Your task to perform on an android device: check storage Image 0: 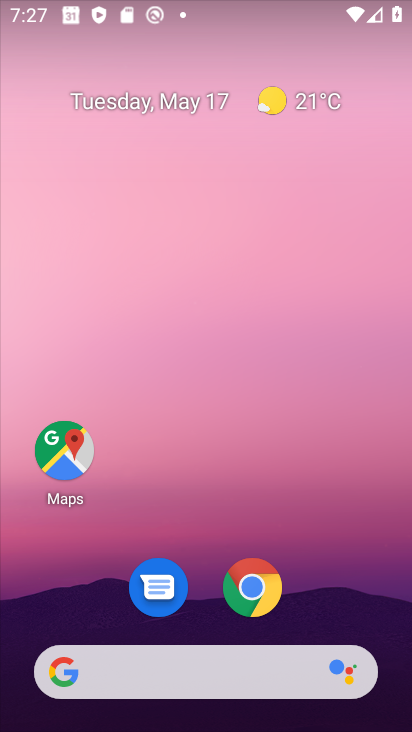
Step 0: drag from (363, 505) to (373, 172)
Your task to perform on an android device: check storage Image 1: 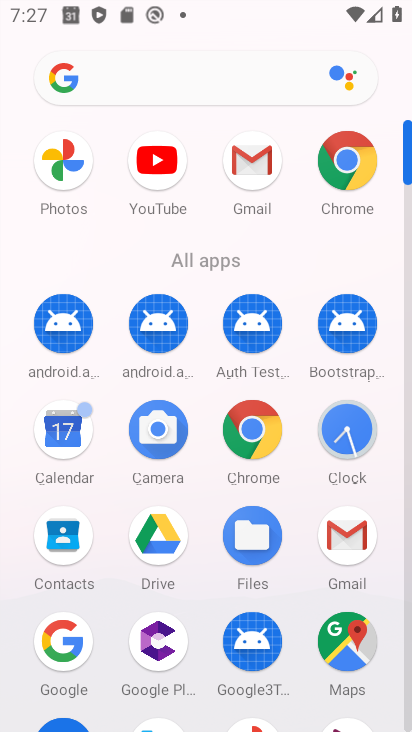
Step 1: drag from (299, 595) to (306, 361)
Your task to perform on an android device: check storage Image 2: 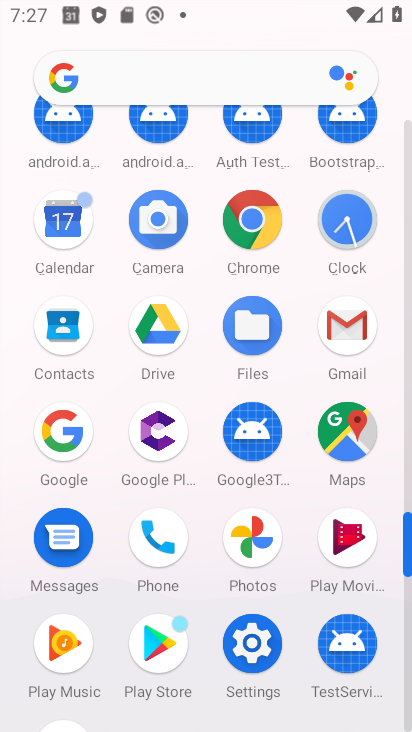
Step 2: click (268, 650)
Your task to perform on an android device: check storage Image 3: 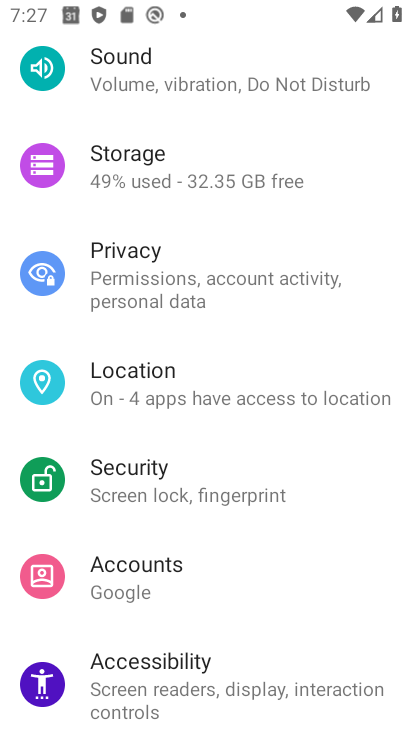
Step 3: drag from (374, 296) to (369, 412)
Your task to perform on an android device: check storage Image 4: 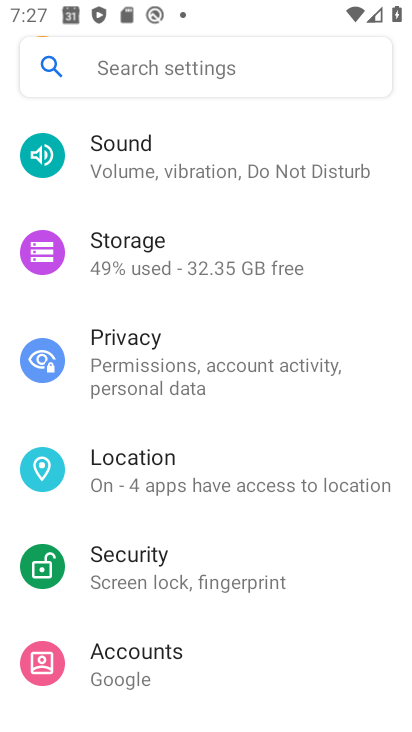
Step 4: drag from (375, 244) to (375, 366)
Your task to perform on an android device: check storage Image 5: 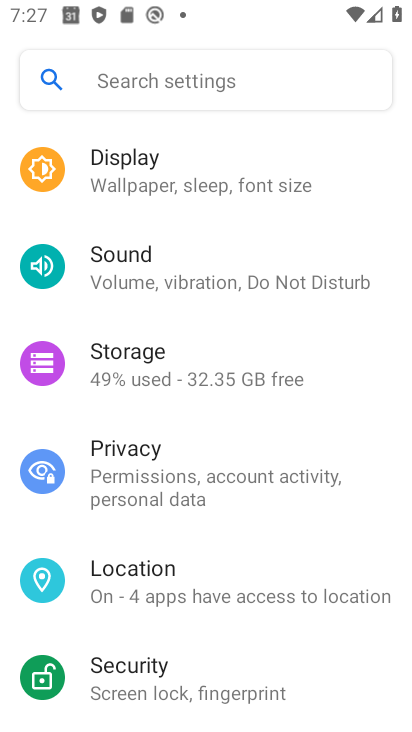
Step 5: drag from (389, 216) to (384, 385)
Your task to perform on an android device: check storage Image 6: 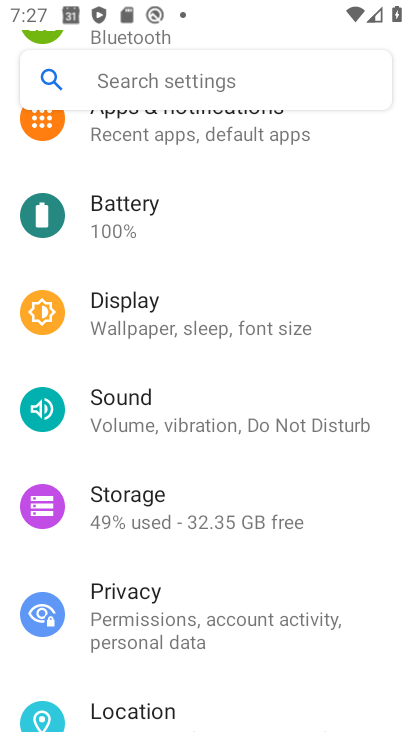
Step 6: drag from (379, 198) to (377, 378)
Your task to perform on an android device: check storage Image 7: 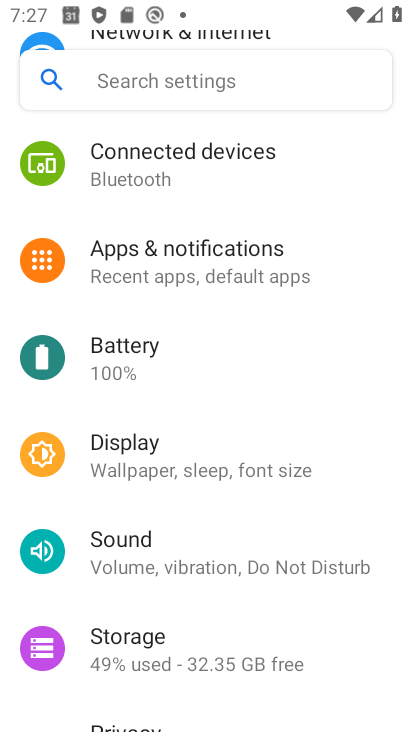
Step 7: drag from (367, 206) to (368, 353)
Your task to perform on an android device: check storage Image 8: 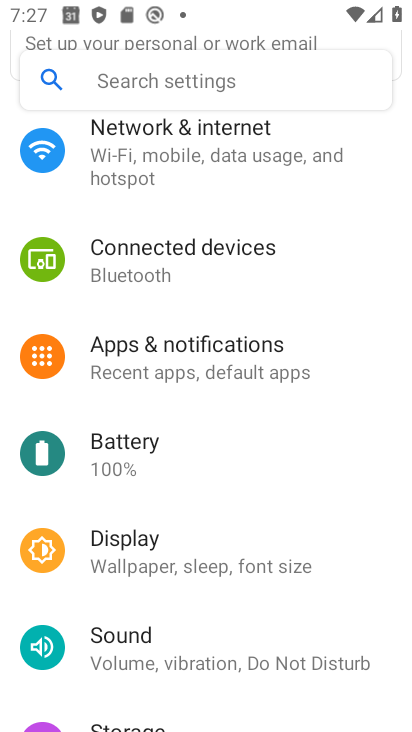
Step 8: drag from (373, 175) to (362, 347)
Your task to perform on an android device: check storage Image 9: 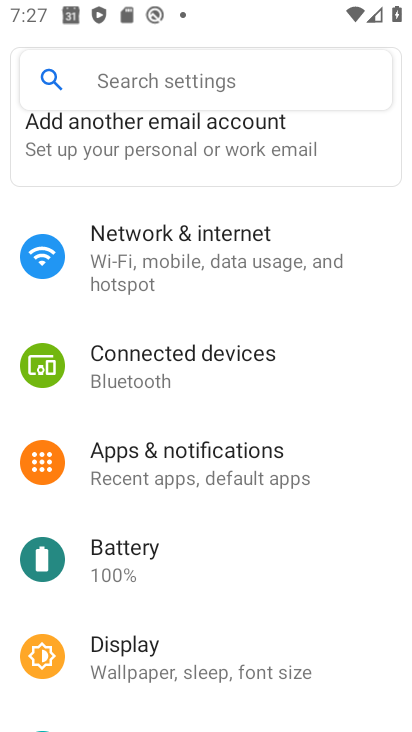
Step 9: drag from (365, 426) to (368, 306)
Your task to perform on an android device: check storage Image 10: 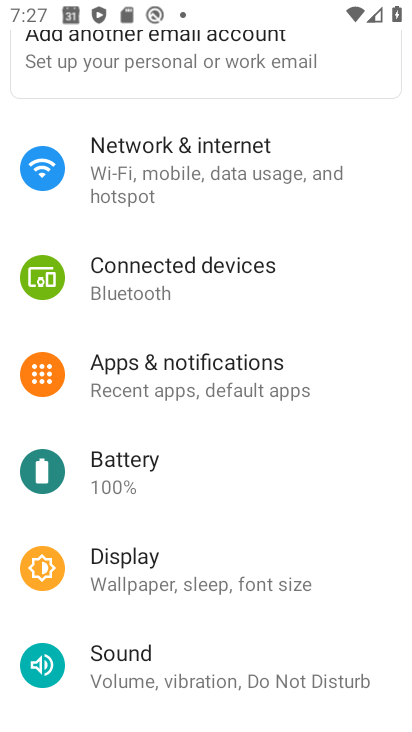
Step 10: drag from (367, 459) to (361, 306)
Your task to perform on an android device: check storage Image 11: 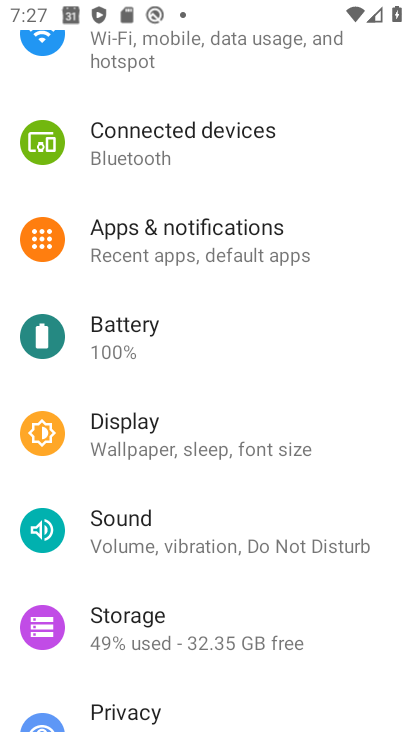
Step 11: drag from (359, 448) to (366, 335)
Your task to perform on an android device: check storage Image 12: 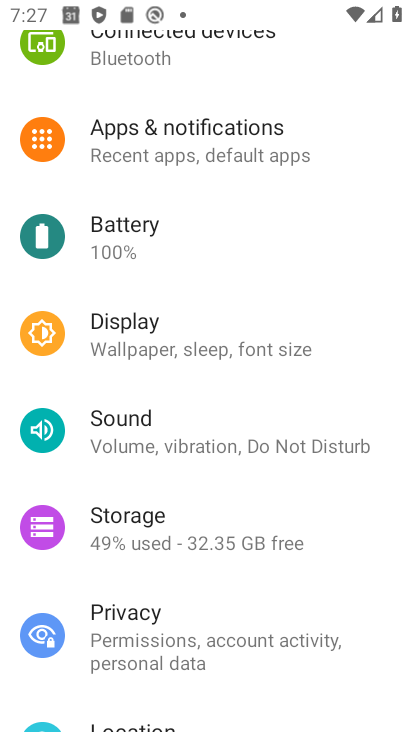
Step 12: drag from (358, 502) to (361, 355)
Your task to perform on an android device: check storage Image 13: 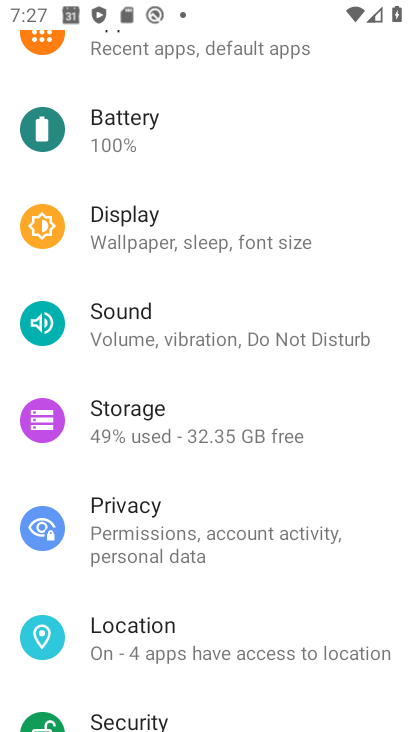
Step 13: drag from (356, 550) to (368, 415)
Your task to perform on an android device: check storage Image 14: 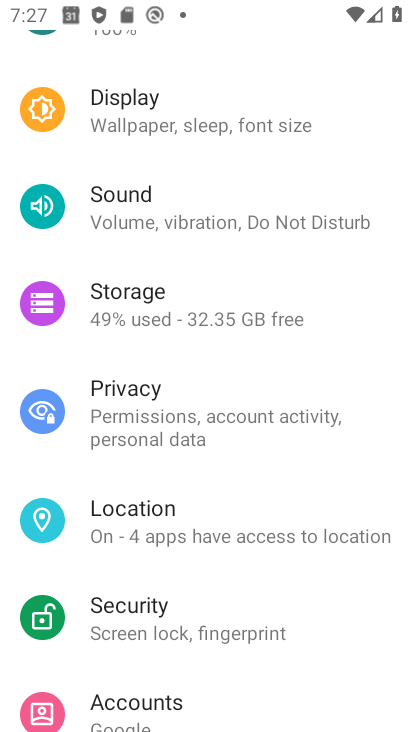
Step 14: click (291, 329)
Your task to perform on an android device: check storage Image 15: 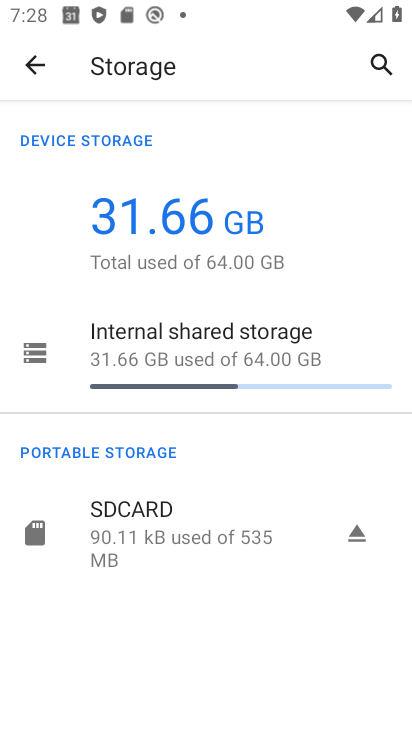
Step 15: task complete